Your task to perform on an android device: turn off improve location accuracy Image 0: 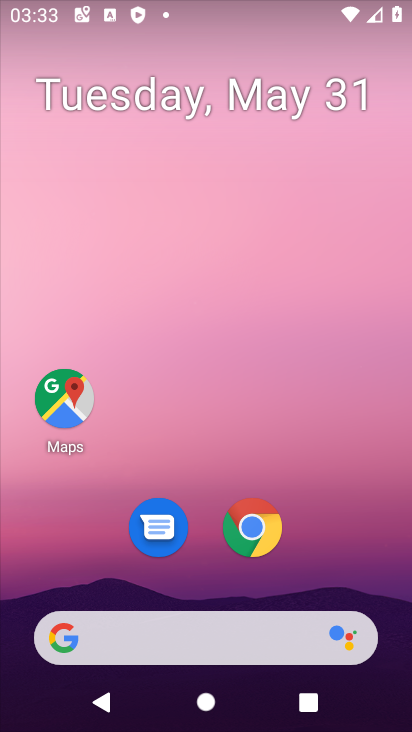
Step 0: drag from (401, 629) to (286, 52)
Your task to perform on an android device: turn off improve location accuracy Image 1: 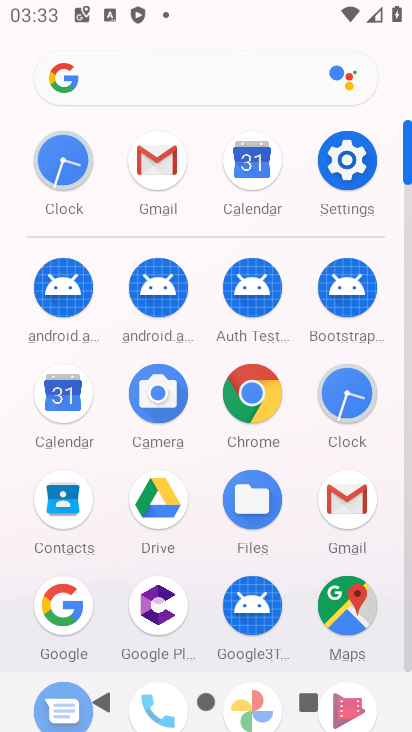
Step 1: click (406, 641)
Your task to perform on an android device: turn off improve location accuracy Image 2: 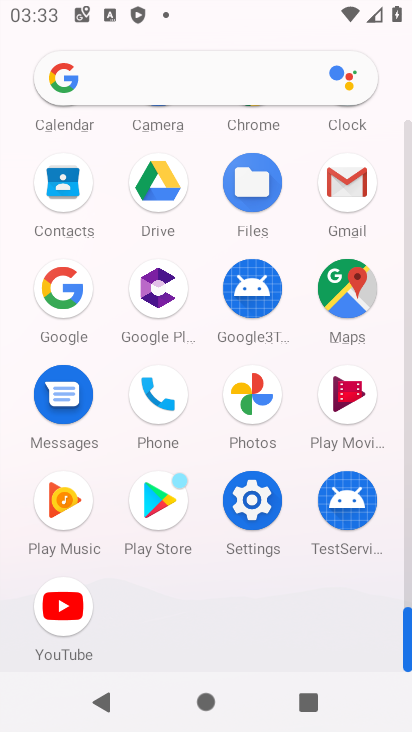
Step 2: click (253, 498)
Your task to perform on an android device: turn off improve location accuracy Image 3: 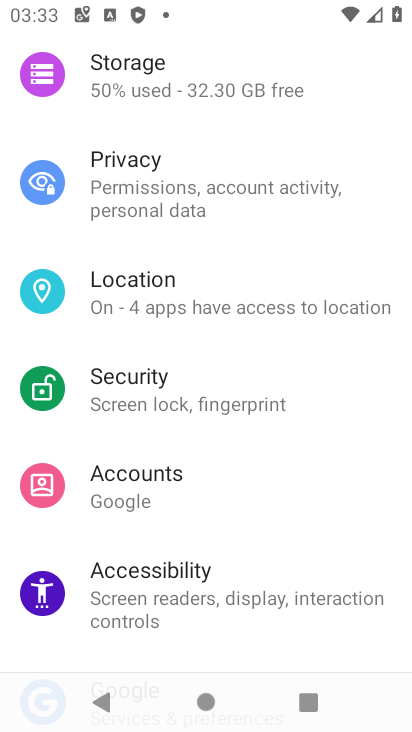
Step 3: click (134, 276)
Your task to perform on an android device: turn off improve location accuracy Image 4: 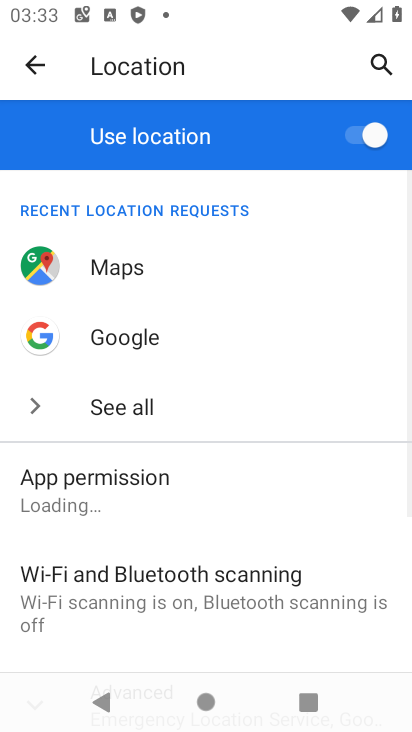
Step 4: drag from (195, 564) to (211, 141)
Your task to perform on an android device: turn off improve location accuracy Image 5: 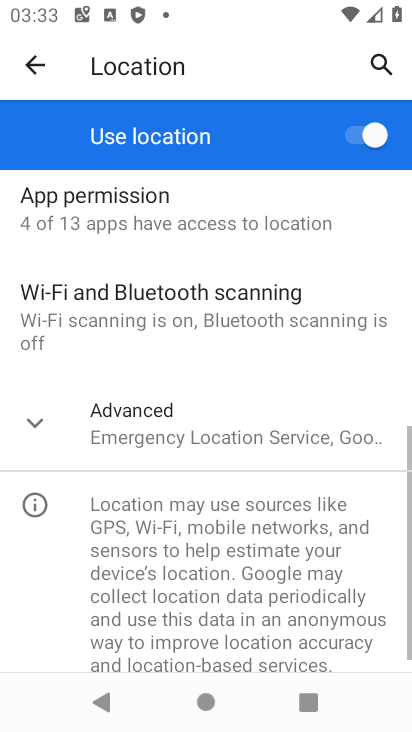
Step 5: click (39, 428)
Your task to perform on an android device: turn off improve location accuracy Image 6: 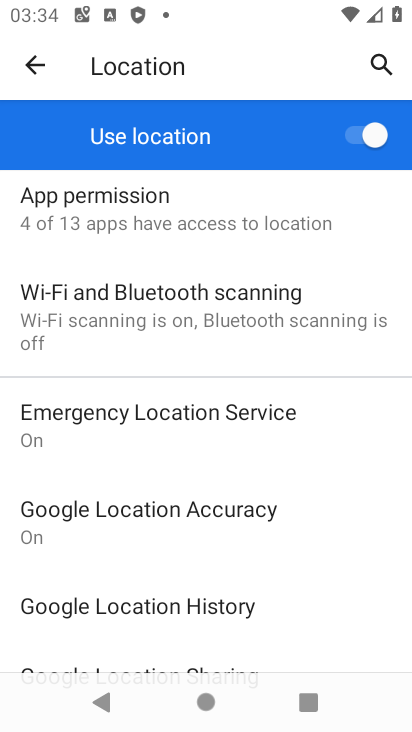
Step 6: click (93, 517)
Your task to perform on an android device: turn off improve location accuracy Image 7: 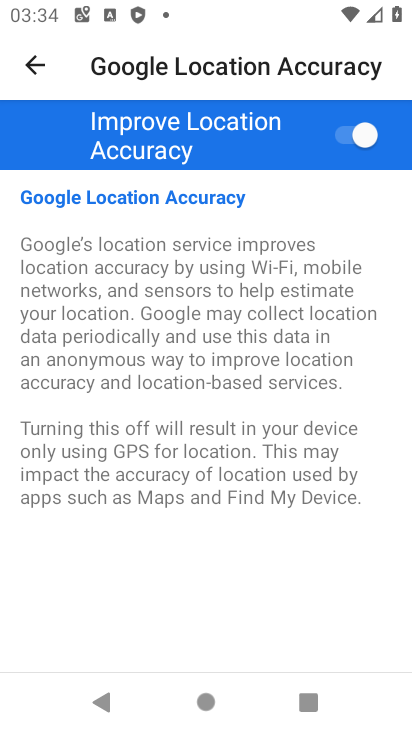
Step 7: click (336, 141)
Your task to perform on an android device: turn off improve location accuracy Image 8: 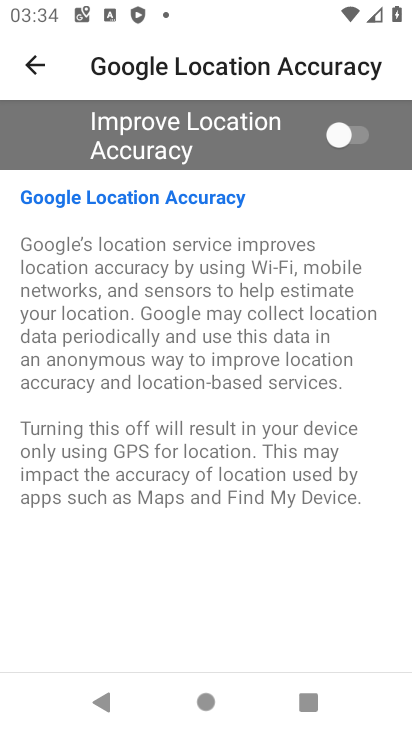
Step 8: task complete